Your task to perform on an android device: Open privacy settings Image 0: 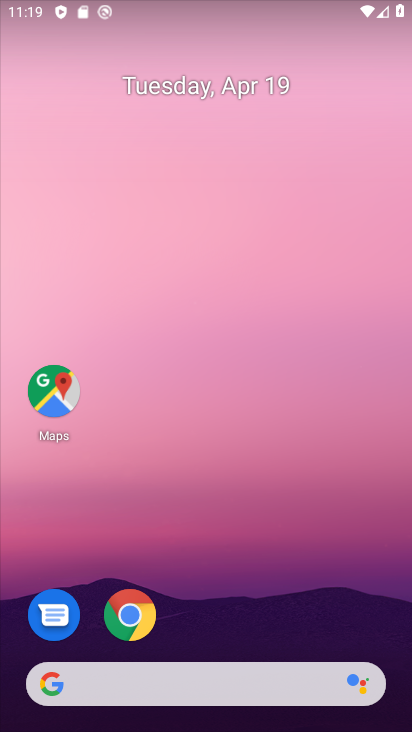
Step 0: drag from (213, 634) to (205, 21)
Your task to perform on an android device: Open privacy settings Image 1: 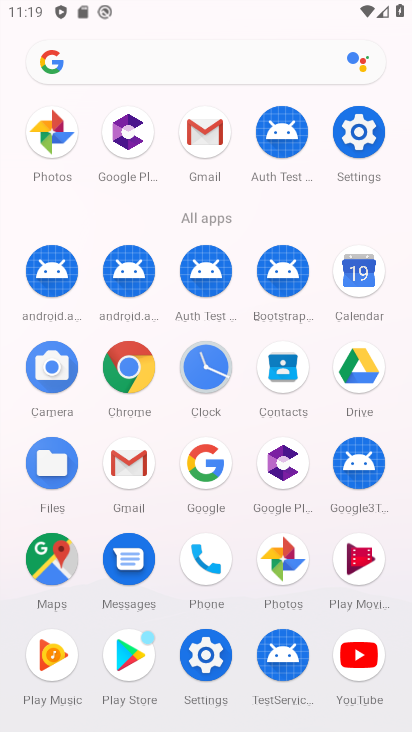
Step 1: click (357, 144)
Your task to perform on an android device: Open privacy settings Image 2: 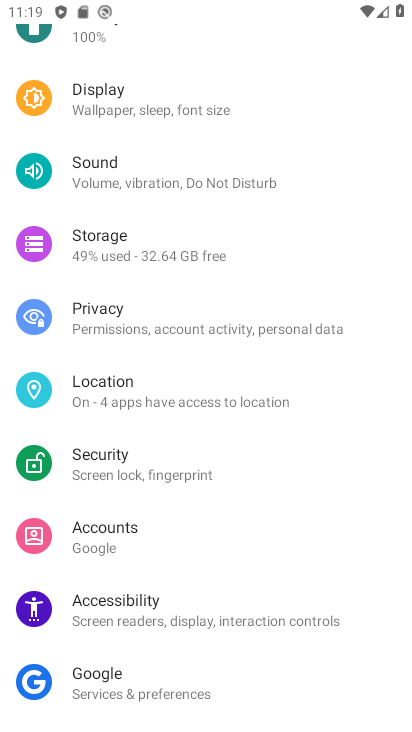
Step 2: drag from (190, 158) to (181, 204)
Your task to perform on an android device: Open privacy settings Image 3: 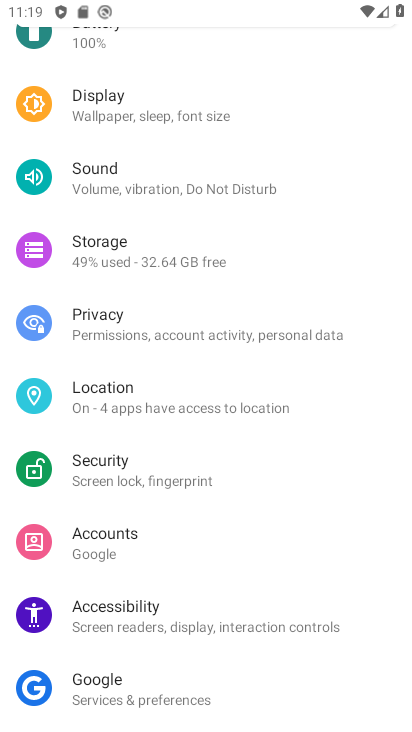
Step 3: click (163, 332)
Your task to perform on an android device: Open privacy settings Image 4: 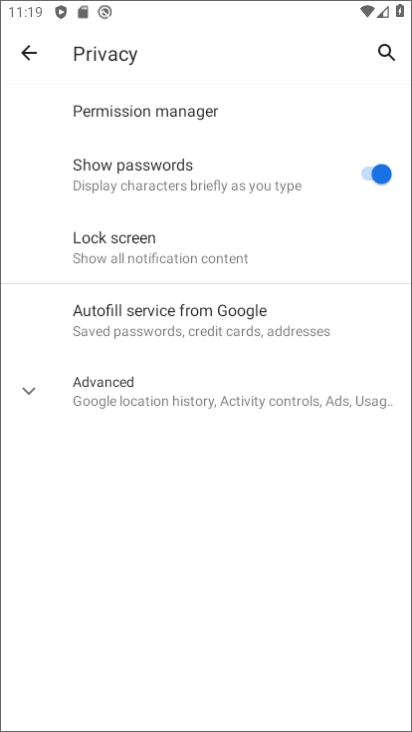
Step 4: click (163, 332)
Your task to perform on an android device: Open privacy settings Image 5: 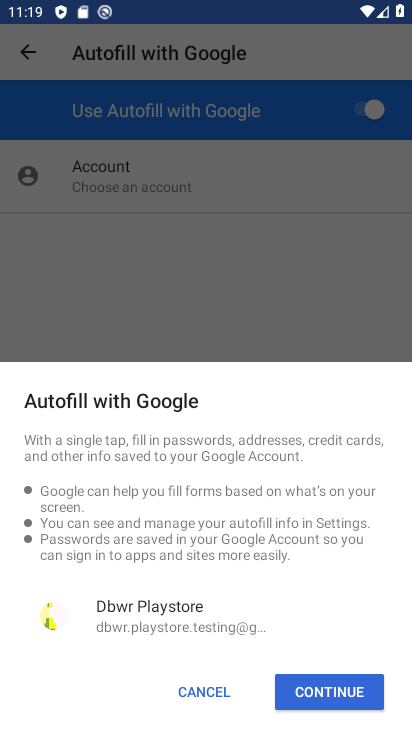
Step 5: task complete